Your task to perform on an android device: turn on bluetooth scan Image 0: 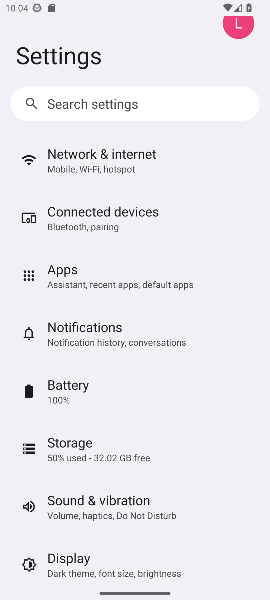
Step 0: press home button
Your task to perform on an android device: turn on bluetooth scan Image 1: 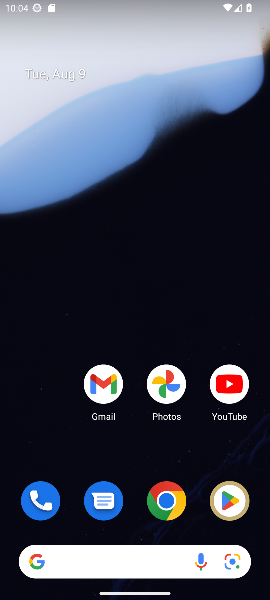
Step 1: drag from (139, 495) to (136, 142)
Your task to perform on an android device: turn on bluetooth scan Image 2: 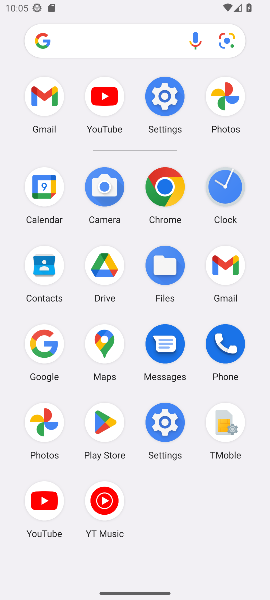
Step 2: click (166, 101)
Your task to perform on an android device: turn on bluetooth scan Image 3: 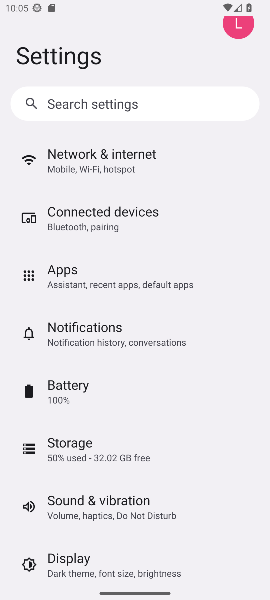
Step 3: drag from (95, 532) to (98, 355)
Your task to perform on an android device: turn on bluetooth scan Image 4: 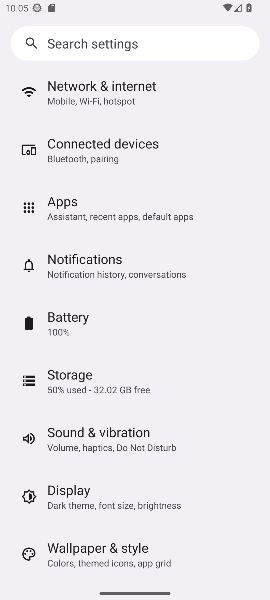
Step 4: drag from (146, 544) to (146, 346)
Your task to perform on an android device: turn on bluetooth scan Image 5: 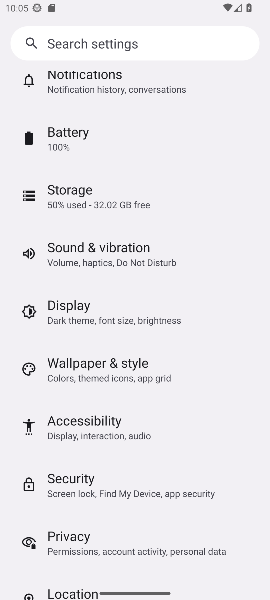
Step 5: click (69, 588)
Your task to perform on an android device: turn on bluetooth scan Image 6: 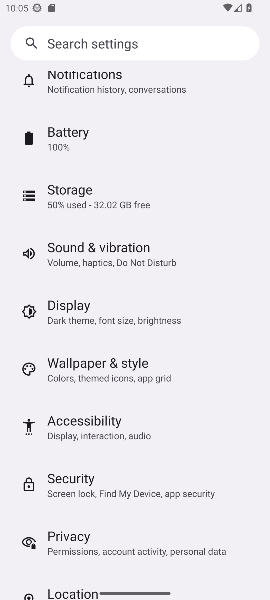
Step 6: click (88, 588)
Your task to perform on an android device: turn on bluetooth scan Image 7: 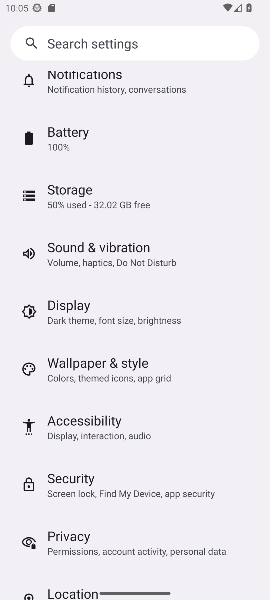
Step 7: drag from (122, 543) to (123, 421)
Your task to perform on an android device: turn on bluetooth scan Image 8: 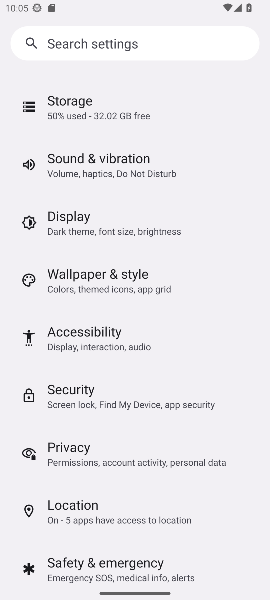
Step 8: click (70, 505)
Your task to perform on an android device: turn on bluetooth scan Image 9: 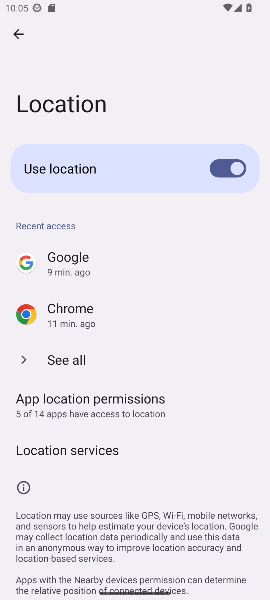
Step 9: drag from (148, 493) to (149, 320)
Your task to perform on an android device: turn on bluetooth scan Image 10: 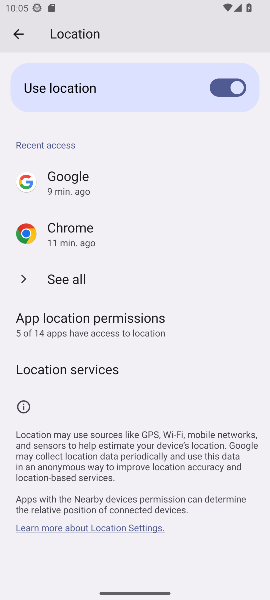
Step 10: click (93, 522)
Your task to perform on an android device: turn on bluetooth scan Image 11: 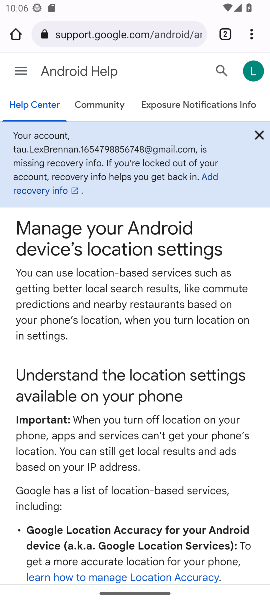
Step 11: press back button
Your task to perform on an android device: turn on bluetooth scan Image 12: 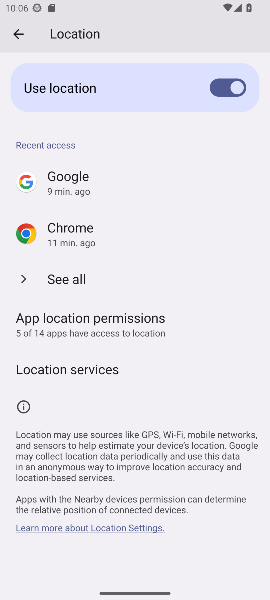
Step 12: click (105, 372)
Your task to perform on an android device: turn on bluetooth scan Image 13: 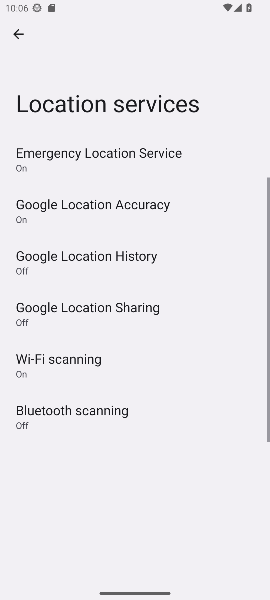
Step 13: click (79, 413)
Your task to perform on an android device: turn on bluetooth scan Image 14: 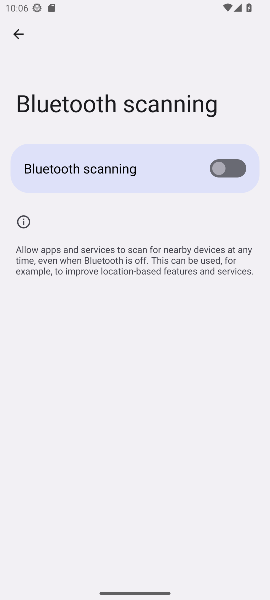
Step 14: click (236, 167)
Your task to perform on an android device: turn on bluetooth scan Image 15: 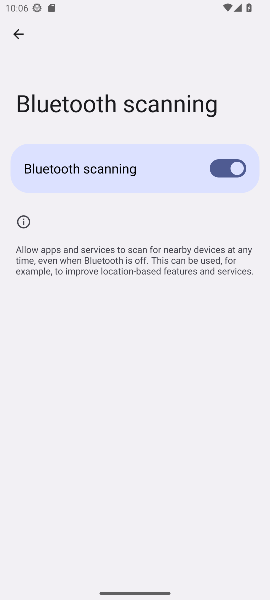
Step 15: task complete